Your task to perform on an android device: Go to Maps Image 0: 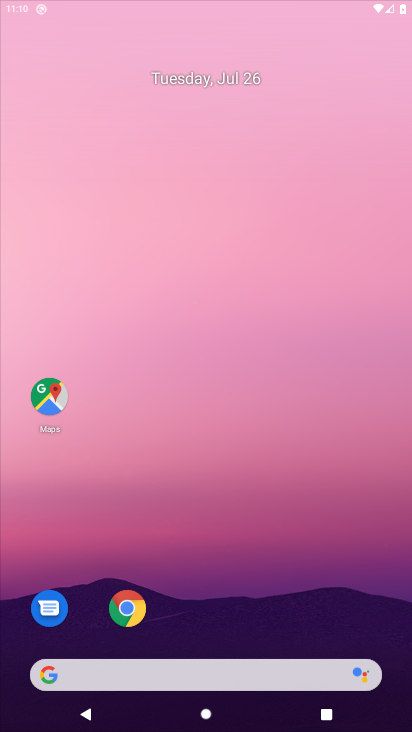
Step 0: click (285, 188)
Your task to perform on an android device: Go to Maps Image 1: 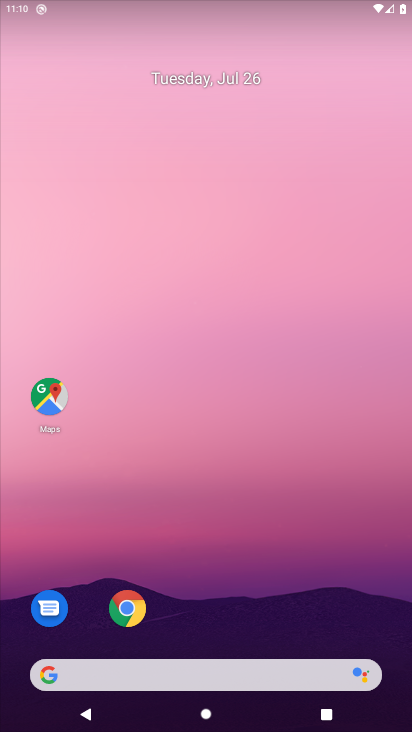
Step 1: drag from (182, 623) to (283, 198)
Your task to perform on an android device: Go to Maps Image 2: 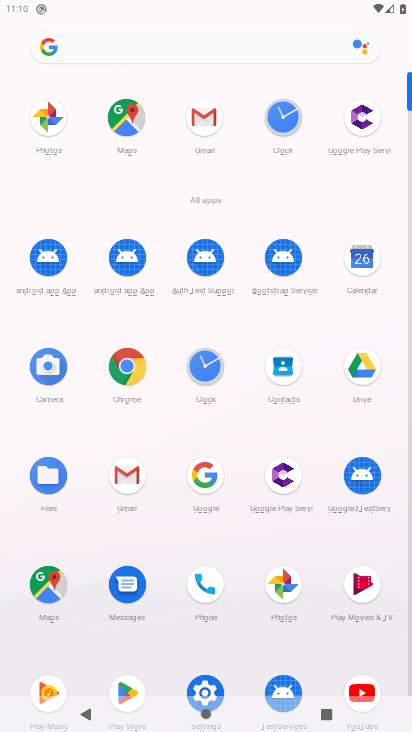
Step 2: click (31, 595)
Your task to perform on an android device: Go to Maps Image 3: 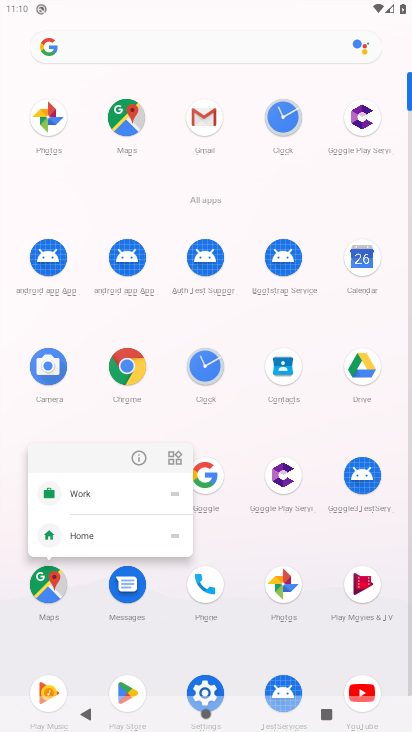
Step 3: click (135, 465)
Your task to perform on an android device: Go to Maps Image 4: 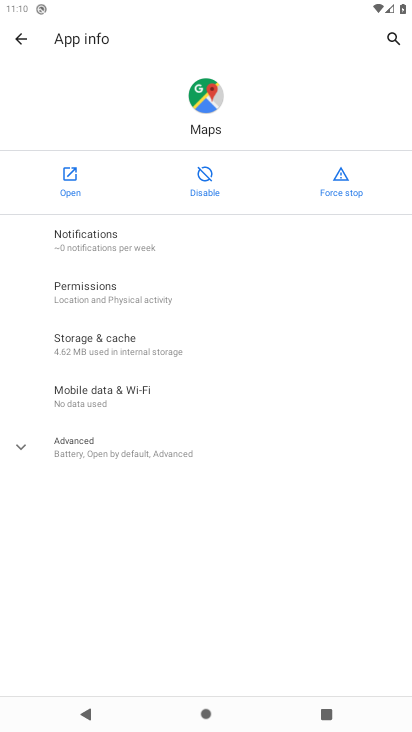
Step 4: click (66, 182)
Your task to perform on an android device: Go to Maps Image 5: 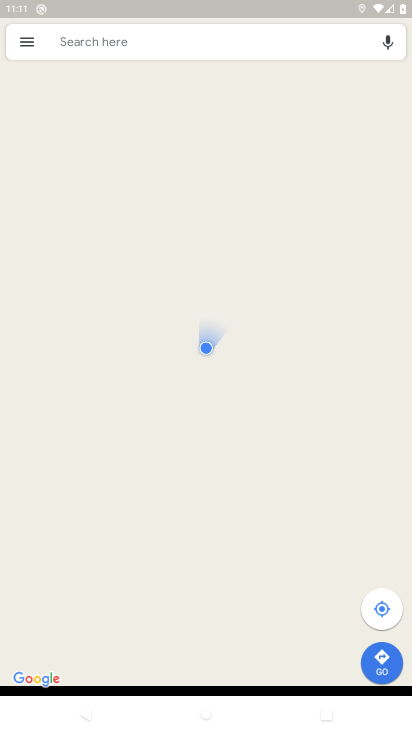
Step 5: task complete